Your task to perform on an android device: Open wifi settings Image 0: 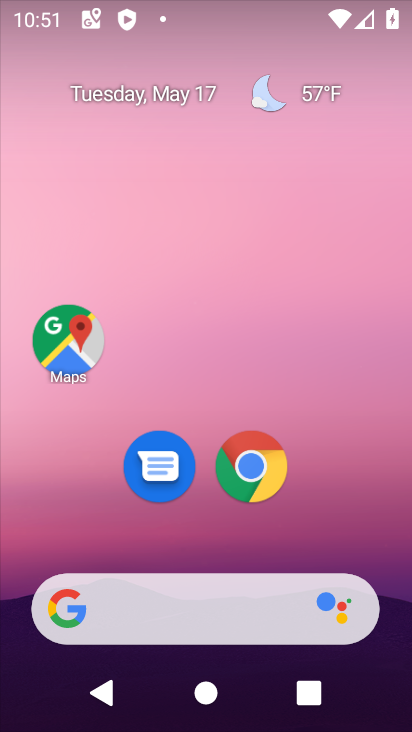
Step 0: drag from (207, 542) to (0, 362)
Your task to perform on an android device: Open wifi settings Image 1: 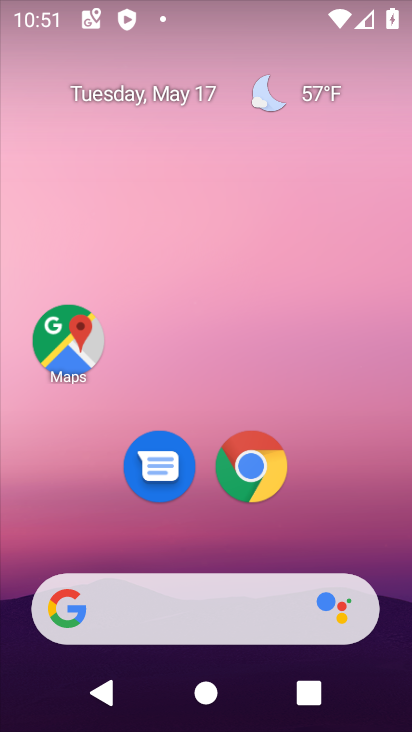
Step 1: drag from (203, 552) to (168, 43)
Your task to perform on an android device: Open wifi settings Image 2: 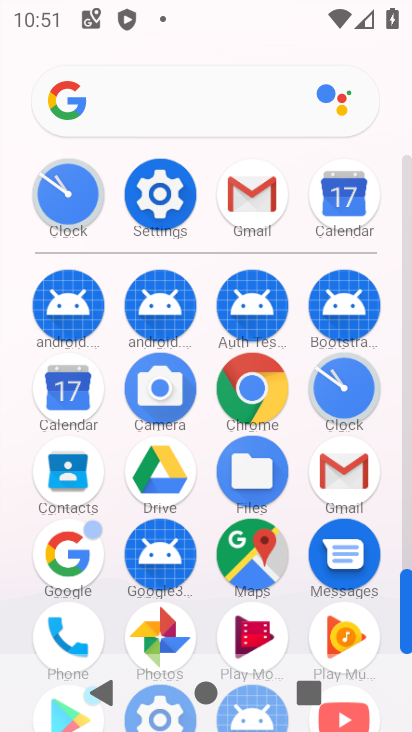
Step 2: click (152, 183)
Your task to perform on an android device: Open wifi settings Image 3: 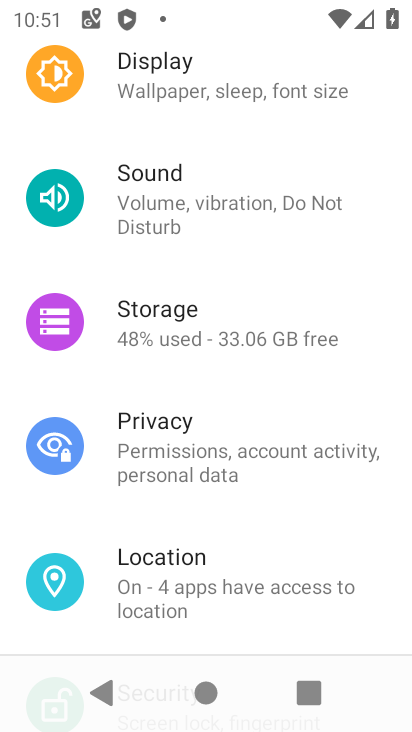
Step 3: drag from (161, 210) to (154, 707)
Your task to perform on an android device: Open wifi settings Image 4: 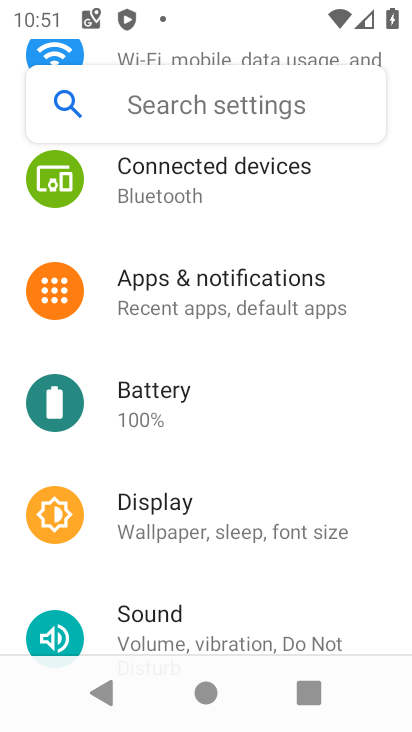
Step 4: drag from (237, 368) to (192, 731)
Your task to perform on an android device: Open wifi settings Image 5: 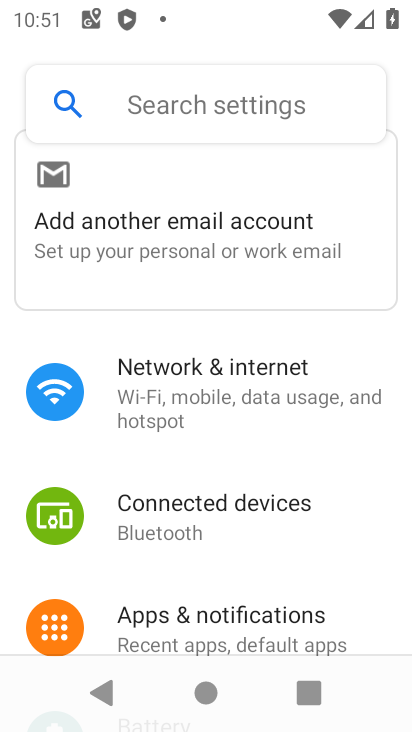
Step 5: click (240, 374)
Your task to perform on an android device: Open wifi settings Image 6: 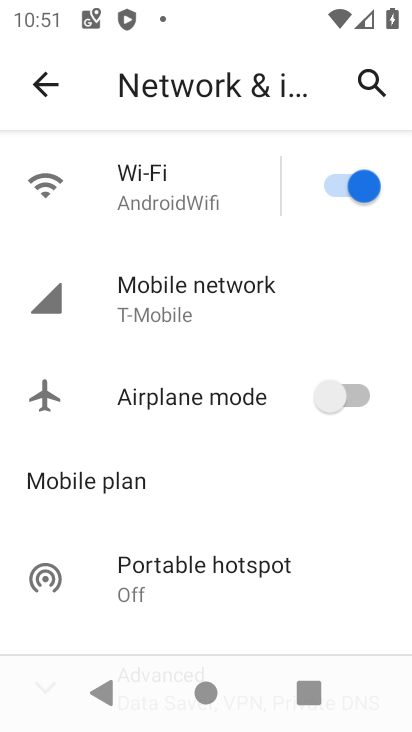
Step 6: click (219, 214)
Your task to perform on an android device: Open wifi settings Image 7: 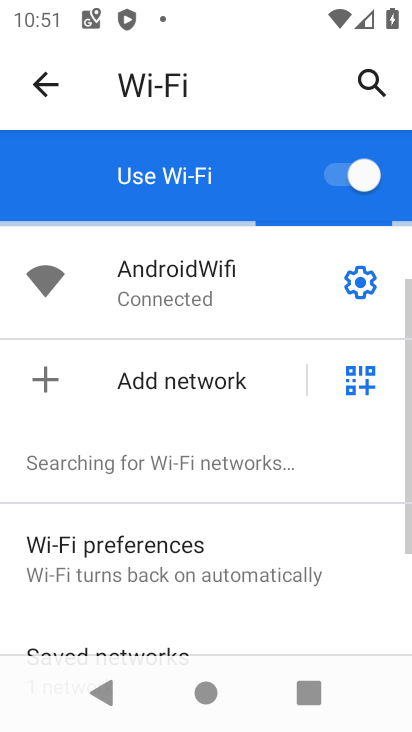
Step 7: task complete